Your task to perform on an android device: turn notification dots on Image 0: 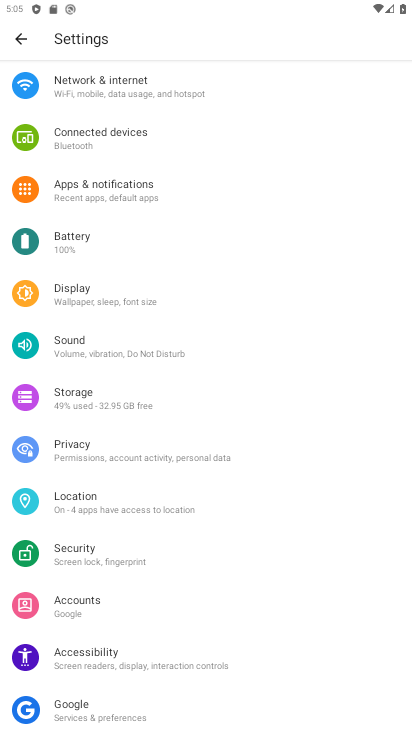
Step 0: click (136, 200)
Your task to perform on an android device: turn notification dots on Image 1: 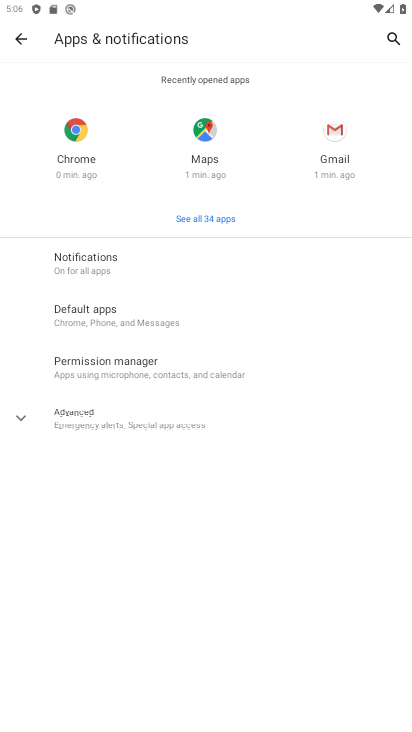
Step 1: click (110, 267)
Your task to perform on an android device: turn notification dots on Image 2: 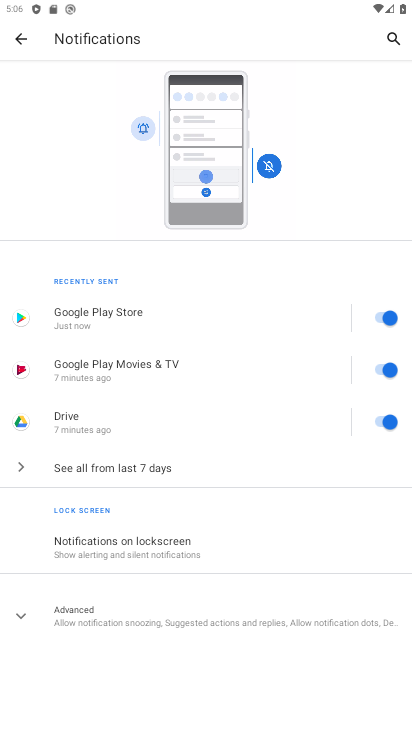
Step 2: click (110, 621)
Your task to perform on an android device: turn notification dots on Image 3: 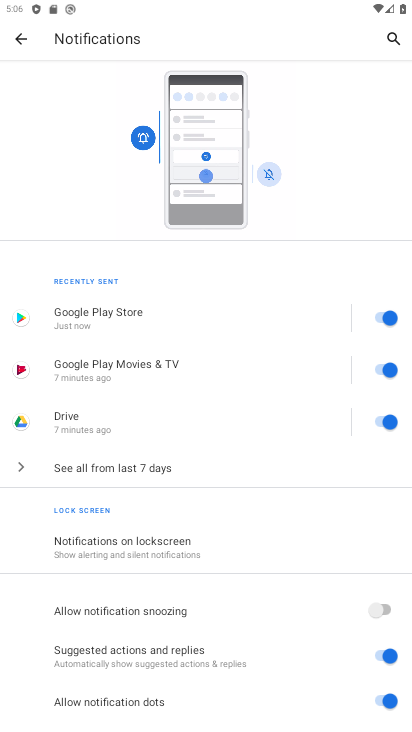
Step 3: task complete